Your task to perform on an android device: star an email in the gmail app Image 0: 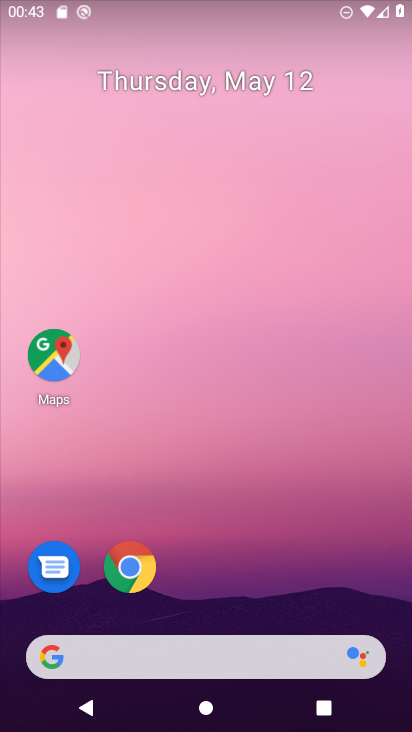
Step 0: drag from (235, 545) to (332, 0)
Your task to perform on an android device: star an email in the gmail app Image 1: 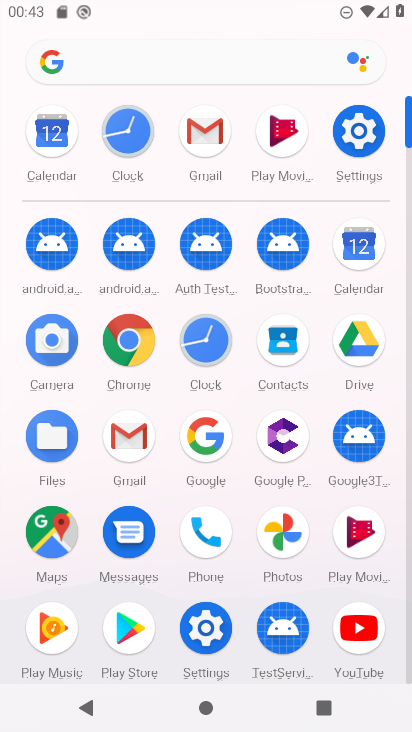
Step 1: click (202, 125)
Your task to perform on an android device: star an email in the gmail app Image 2: 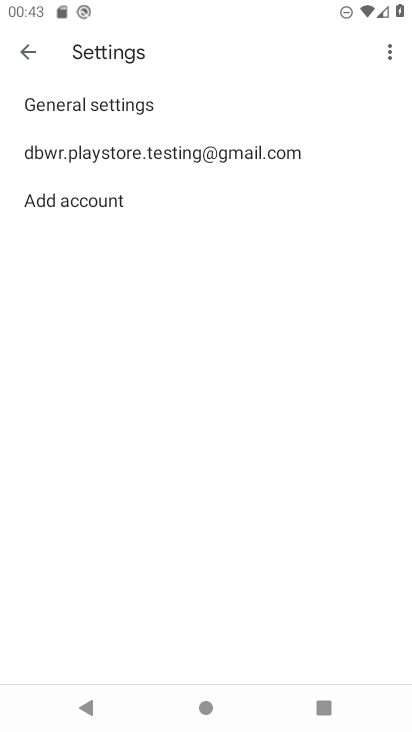
Step 2: click (28, 40)
Your task to perform on an android device: star an email in the gmail app Image 3: 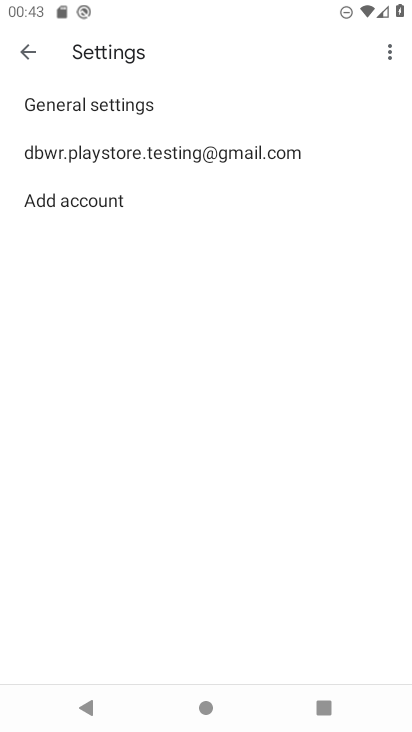
Step 3: click (20, 51)
Your task to perform on an android device: star an email in the gmail app Image 4: 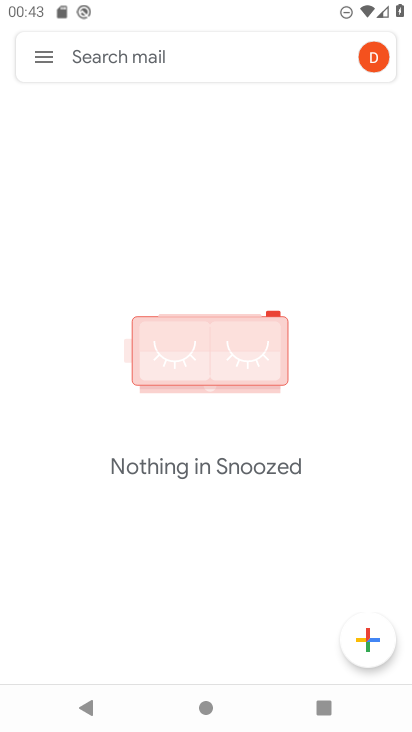
Step 4: click (53, 62)
Your task to perform on an android device: star an email in the gmail app Image 5: 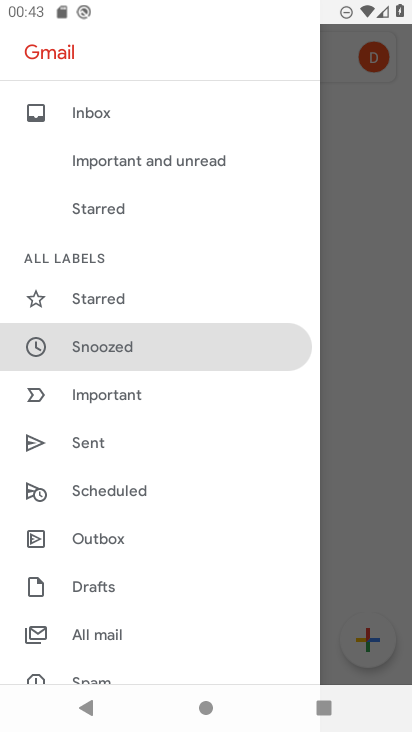
Step 5: click (122, 633)
Your task to perform on an android device: star an email in the gmail app Image 6: 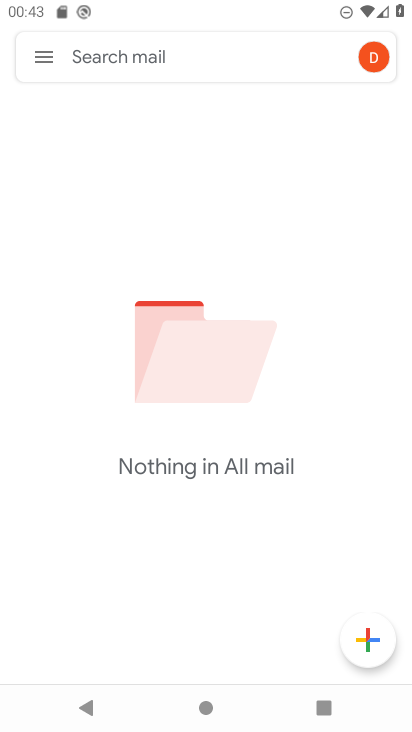
Step 6: task complete